Your task to perform on an android device: Search for vintage wall art on Etsy. Image 0: 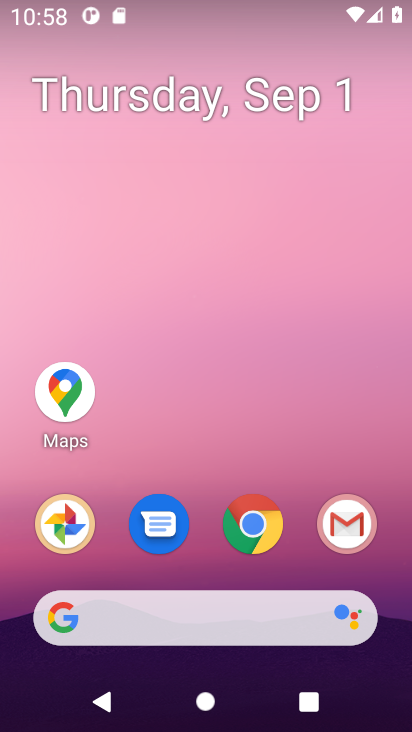
Step 0: drag from (394, 580) to (379, 156)
Your task to perform on an android device: Search for vintage wall art on Etsy. Image 1: 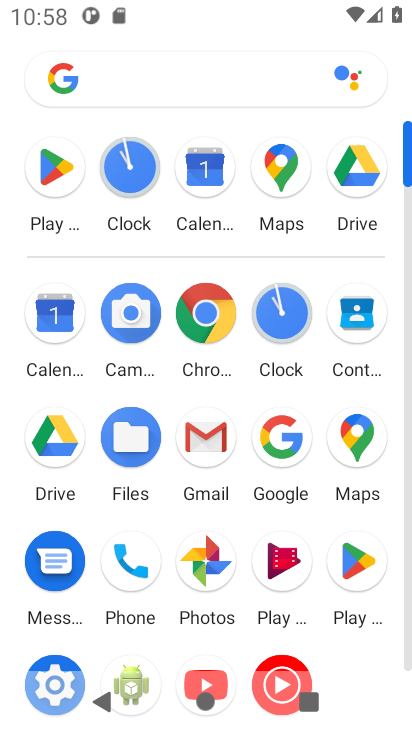
Step 1: click (206, 312)
Your task to perform on an android device: Search for vintage wall art on Etsy. Image 2: 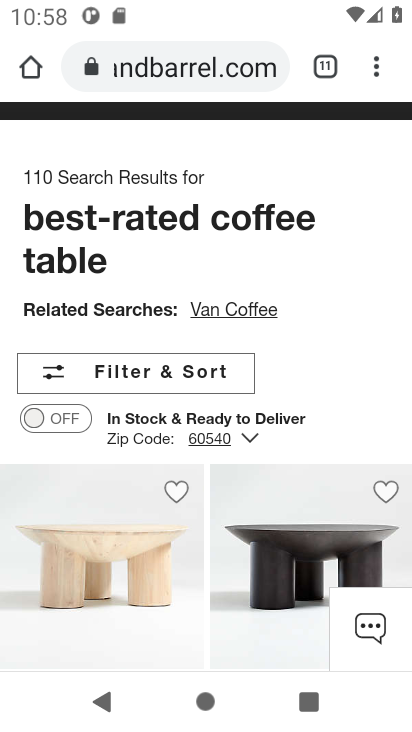
Step 2: click (221, 56)
Your task to perform on an android device: Search for vintage wall art on Etsy. Image 3: 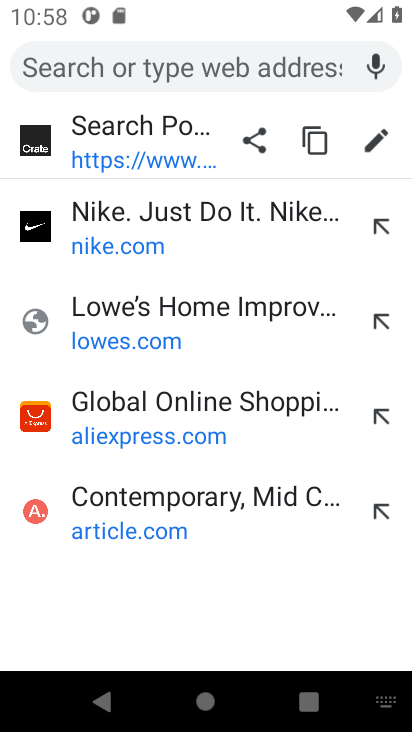
Step 3: press enter
Your task to perform on an android device: Search for vintage wall art on Etsy. Image 4: 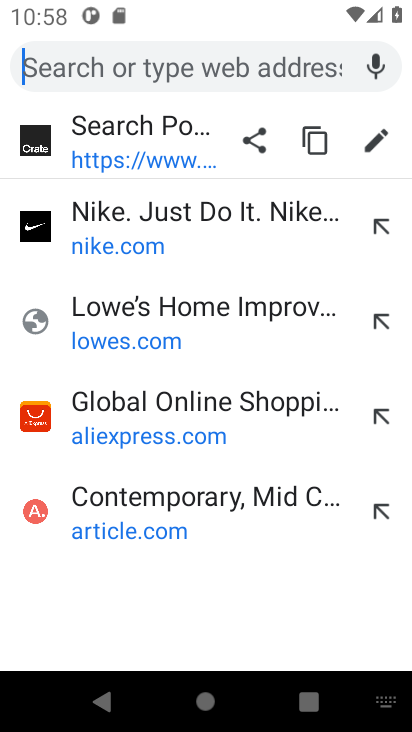
Step 4: type "etsy"
Your task to perform on an android device: Search for vintage wall art on Etsy. Image 5: 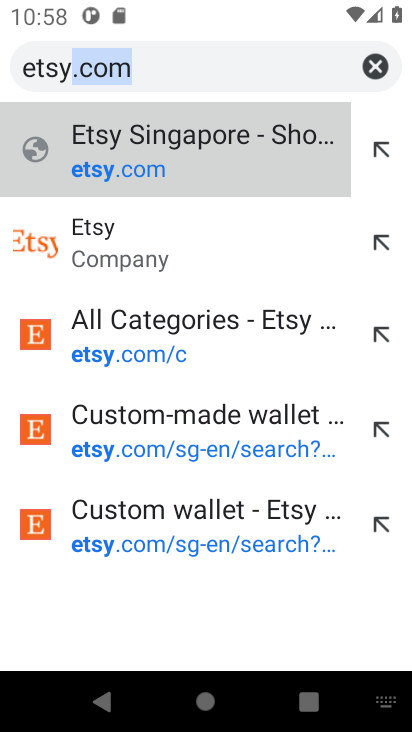
Step 5: click (107, 238)
Your task to perform on an android device: Search for vintage wall art on Etsy. Image 6: 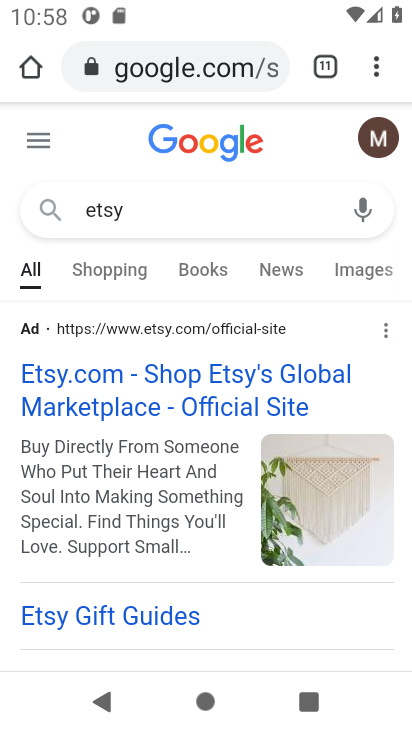
Step 6: click (150, 392)
Your task to perform on an android device: Search for vintage wall art on Etsy. Image 7: 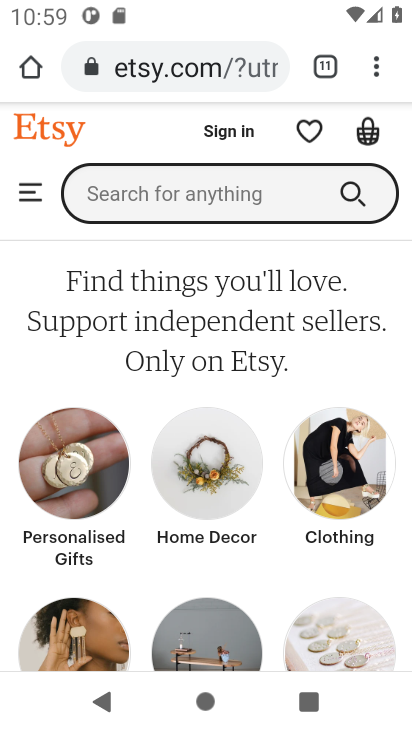
Step 7: click (278, 192)
Your task to perform on an android device: Search for vintage wall art on Etsy. Image 8: 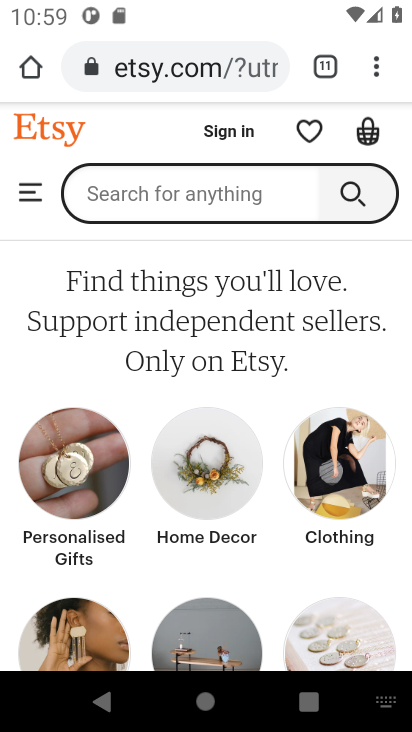
Step 8: click (349, 189)
Your task to perform on an android device: Search for vintage wall art on Etsy. Image 9: 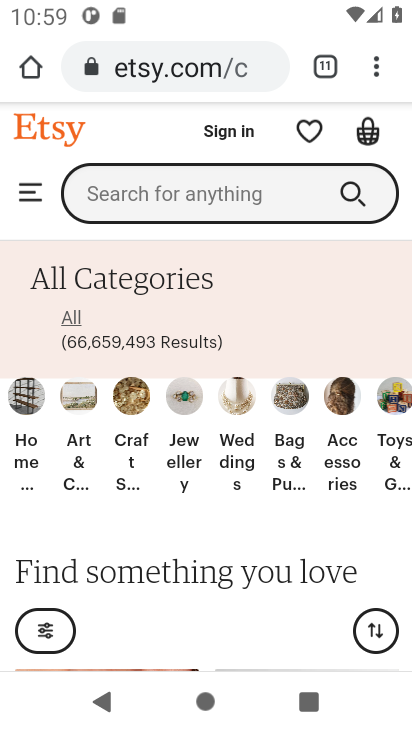
Step 9: click (158, 179)
Your task to perform on an android device: Search for vintage wall art on Etsy. Image 10: 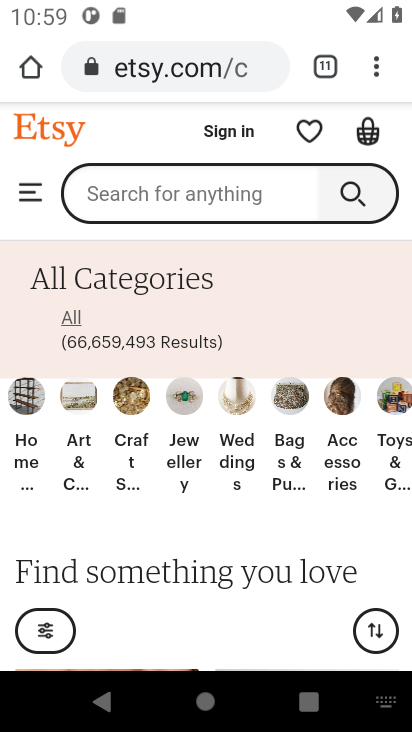
Step 10: type "vintage wall art"
Your task to perform on an android device: Search for vintage wall art on Etsy. Image 11: 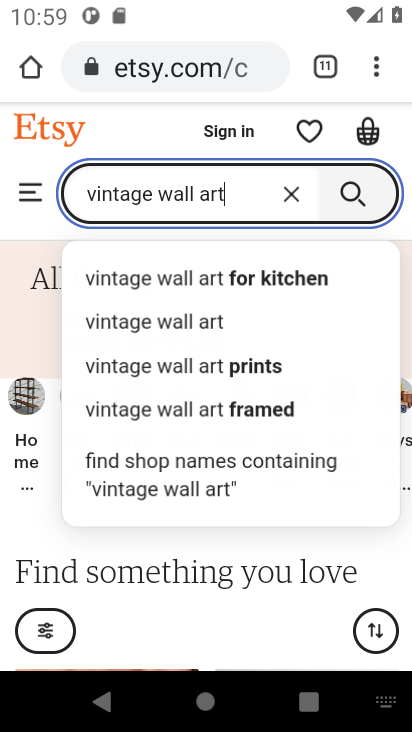
Step 11: press enter
Your task to perform on an android device: Search for vintage wall art on Etsy. Image 12: 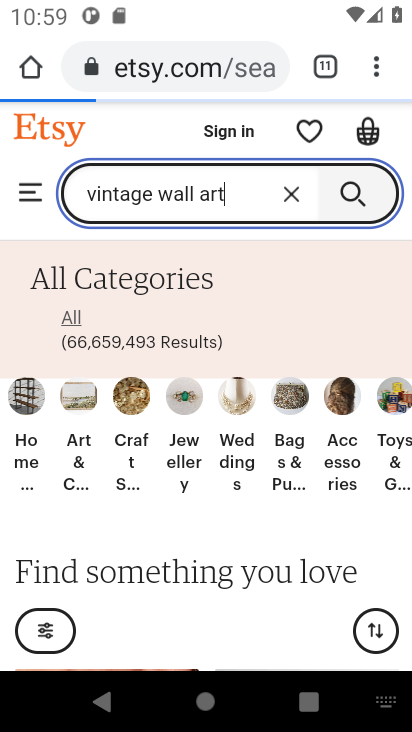
Step 12: click (355, 188)
Your task to perform on an android device: Search for vintage wall art on Etsy. Image 13: 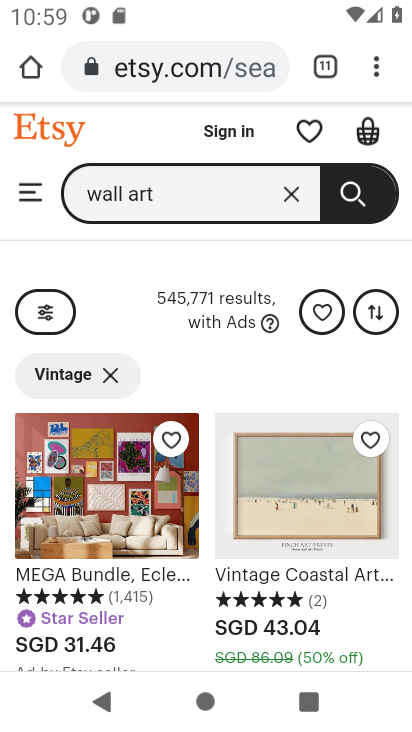
Step 13: task complete